Your task to perform on an android device: Search for Italian restaurants on Maps Image 0: 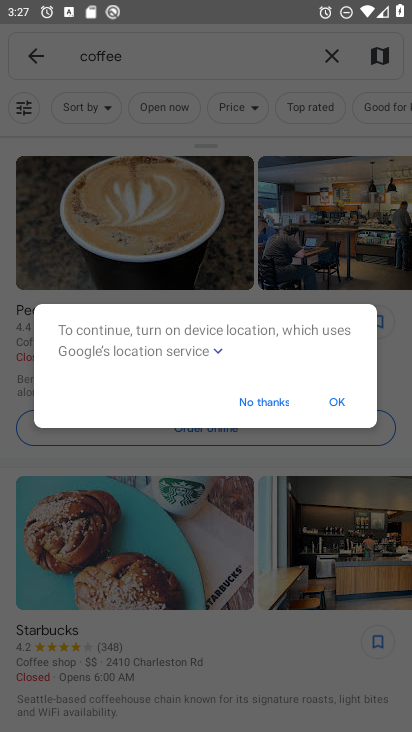
Step 0: press home button
Your task to perform on an android device: Search for Italian restaurants on Maps Image 1: 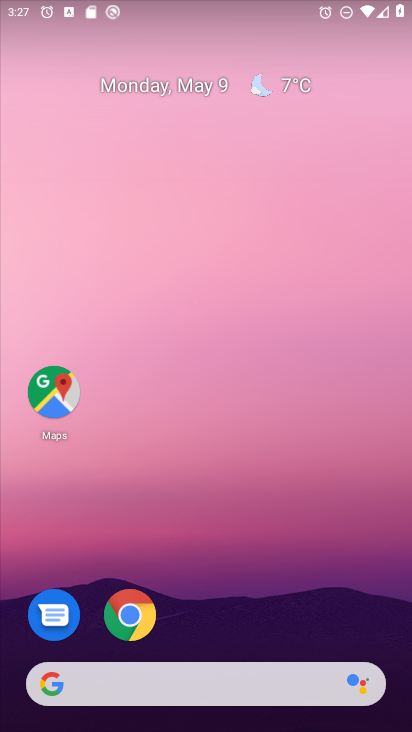
Step 1: click (48, 391)
Your task to perform on an android device: Search for Italian restaurants on Maps Image 2: 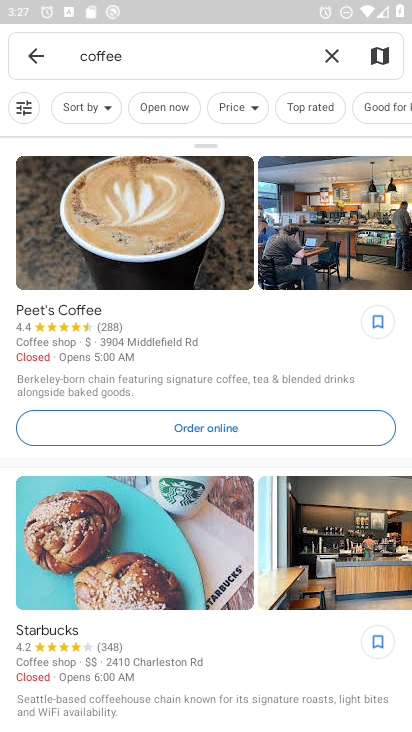
Step 2: click (330, 52)
Your task to perform on an android device: Search for Italian restaurants on Maps Image 3: 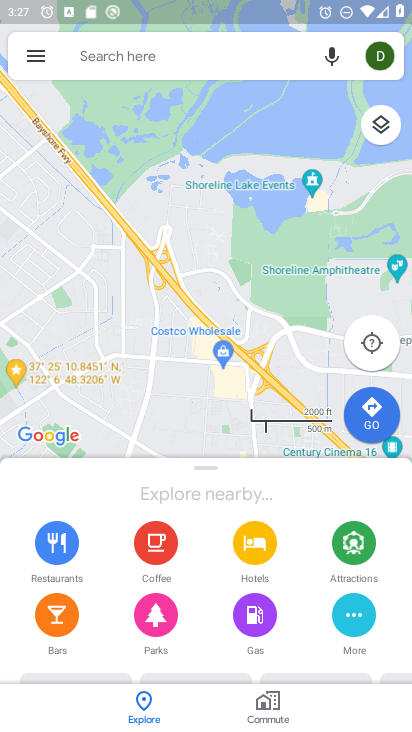
Step 3: click (133, 53)
Your task to perform on an android device: Search for Italian restaurants on Maps Image 4: 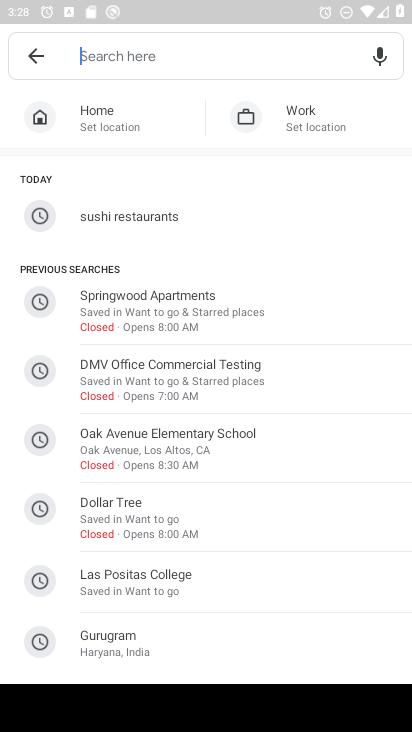
Step 4: type "italian restaurants"
Your task to perform on an android device: Search for Italian restaurants on Maps Image 5: 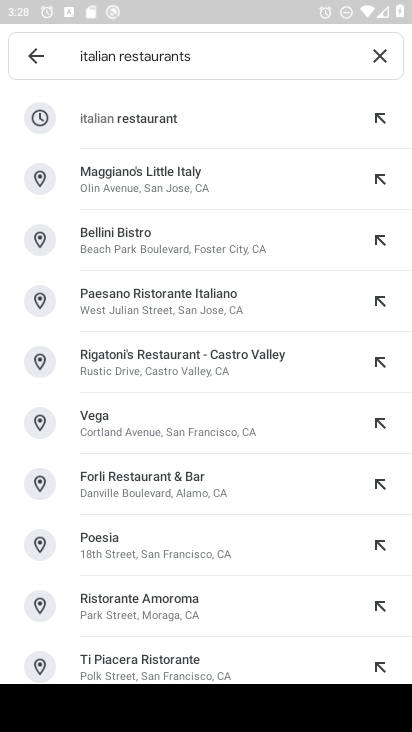
Step 5: click (144, 124)
Your task to perform on an android device: Search for Italian restaurants on Maps Image 6: 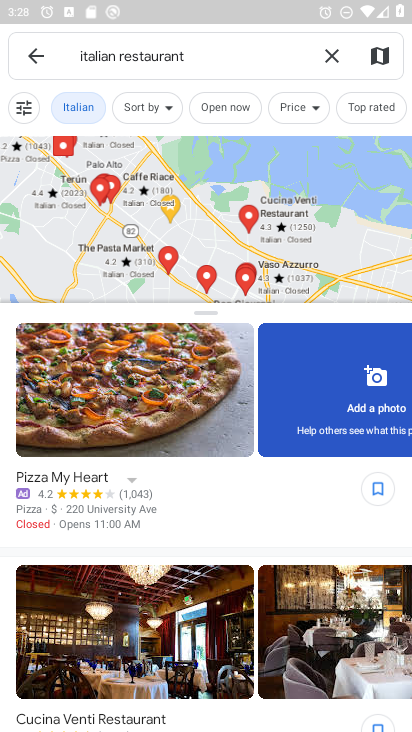
Step 6: task complete